Your task to perform on an android device: Open eBay Image 0: 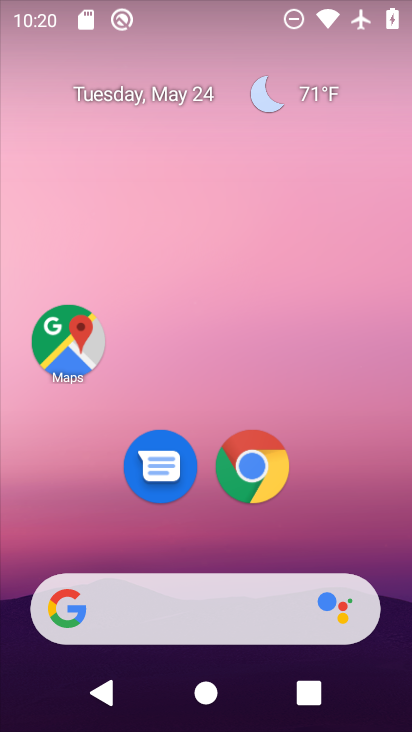
Step 0: click (213, 560)
Your task to perform on an android device: Open eBay Image 1: 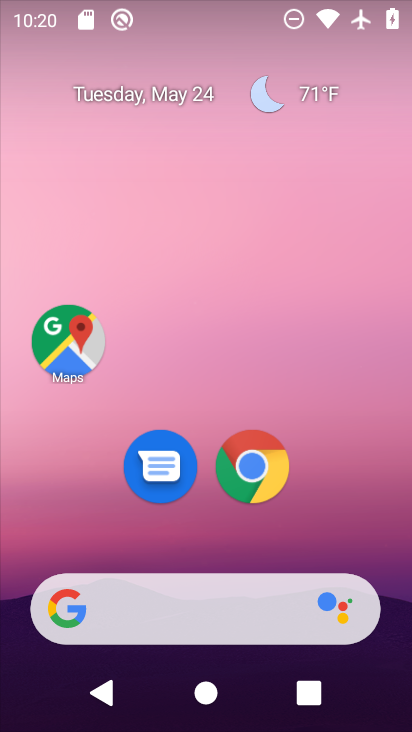
Step 1: click (263, 469)
Your task to perform on an android device: Open eBay Image 2: 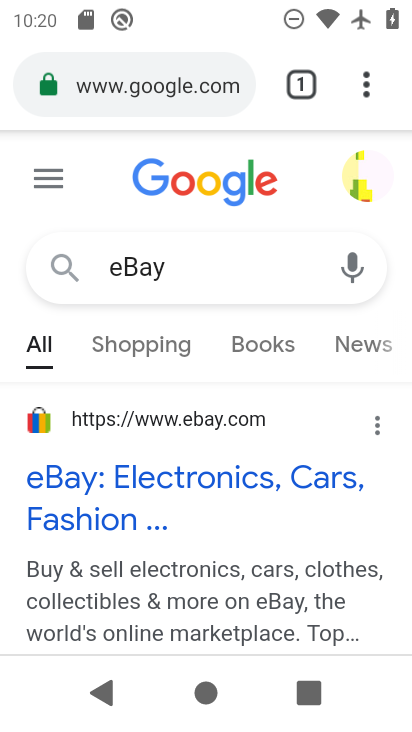
Step 2: click (177, 491)
Your task to perform on an android device: Open eBay Image 3: 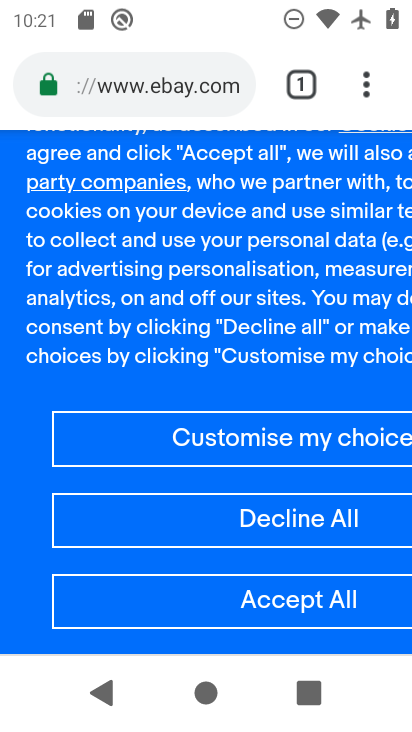
Step 3: task complete